Your task to perform on an android device: turn off location history Image 0: 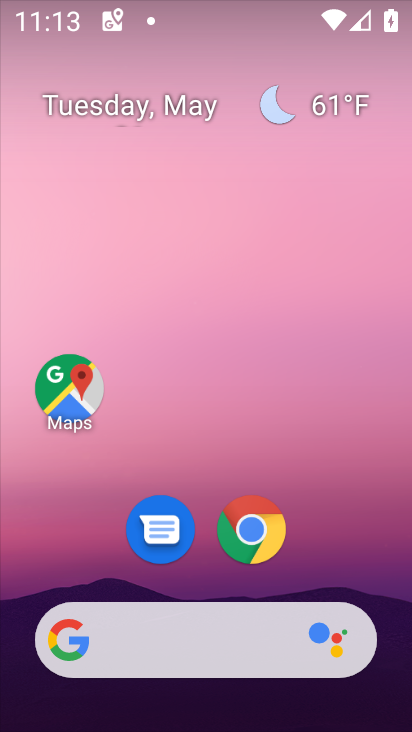
Step 0: drag from (368, 579) to (120, 124)
Your task to perform on an android device: turn off location history Image 1: 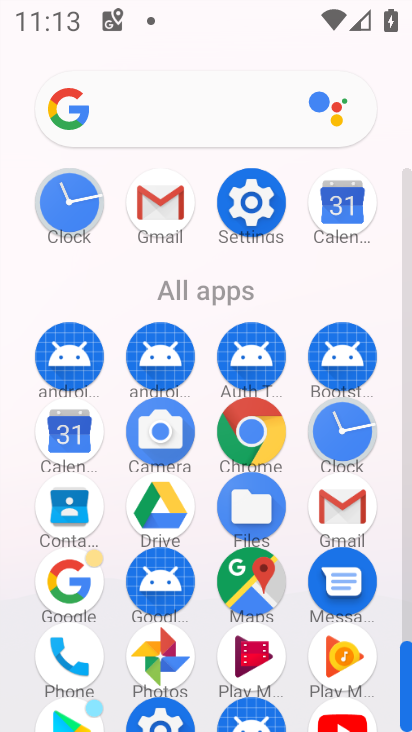
Step 1: click (258, 230)
Your task to perform on an android device: turn off location history Image 2: 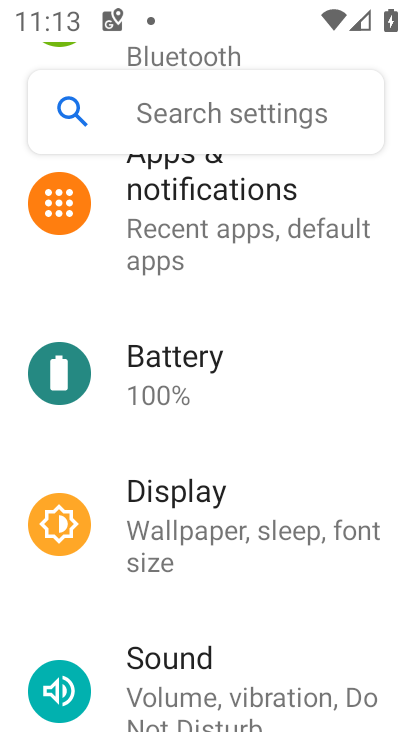
Step 2: drag from (264, 665) to (219, 140)
Your task to perform on an android device: turn off location history Image 3: 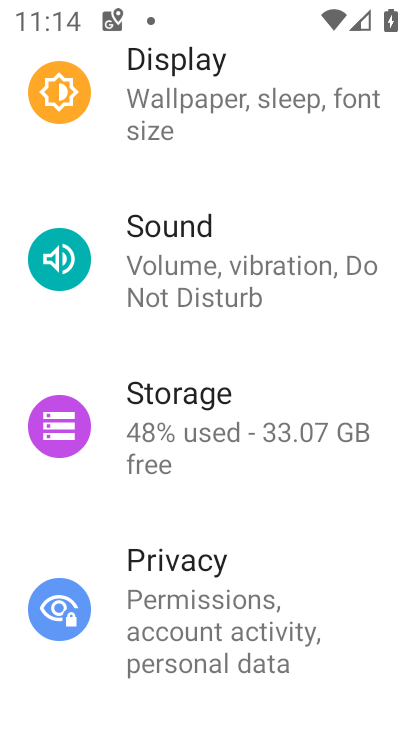
Step 3: drag from (215, 610) to (174, 50)
Your task to perform on an android device: turn off location history Image 4: 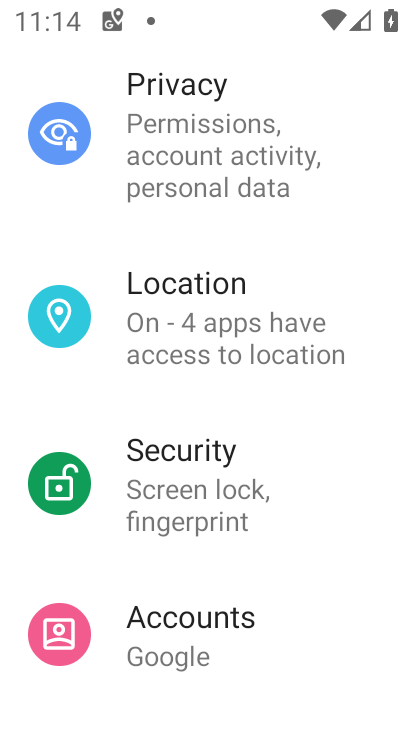
Step 4: click (167, 331)
Your task to perform on an android device: turn off location history Image 5: 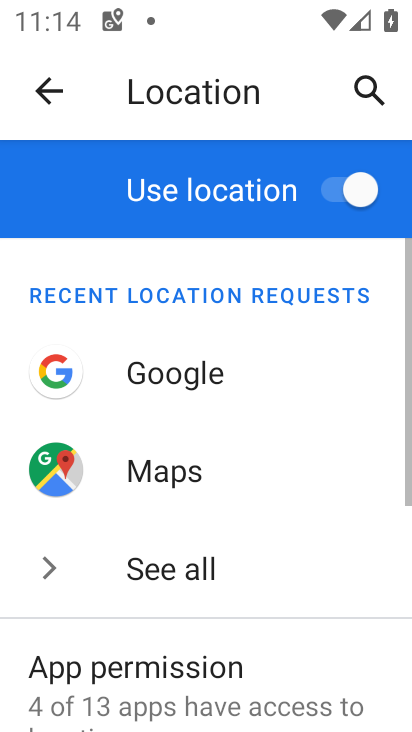
Step 5: drag from (247, 603) to (160, 136)
Your task to perform on an android device: turn off location history Image 6: 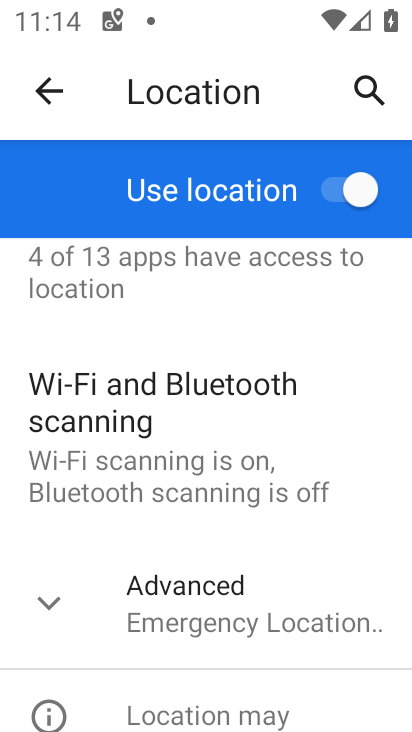
Step 6: drag from (190, 638) to (171, 491)
Your task to perform on an android device: turn off location history Image 7: 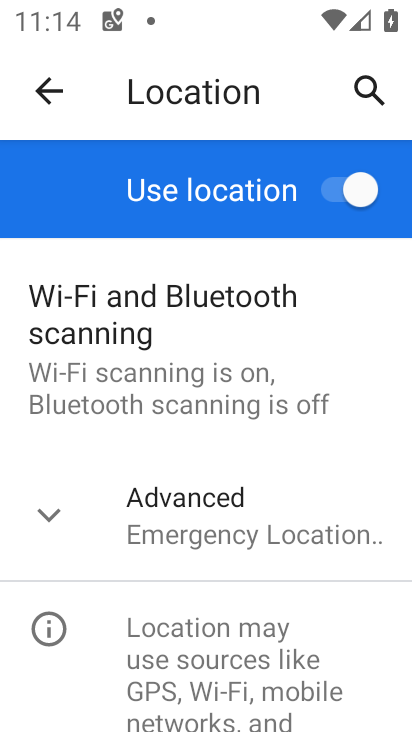
Step 7: click (177, 520)
Your task to perform on an android device: turn off location history Image 8: 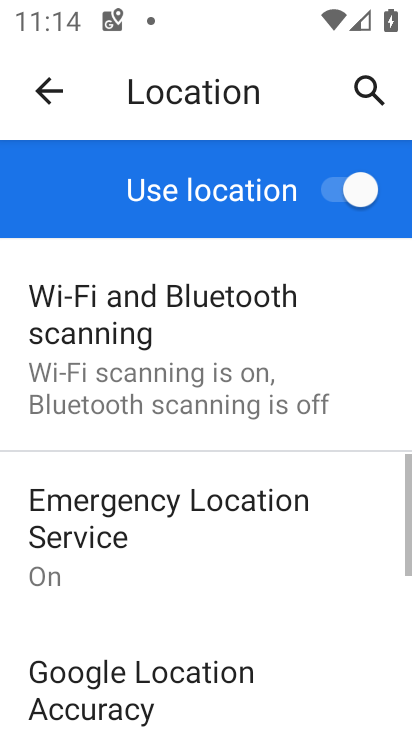
Step 8: drag from (195, 684) to (126, 364)
Your task to perform on an android device: turn off location history Image 9: 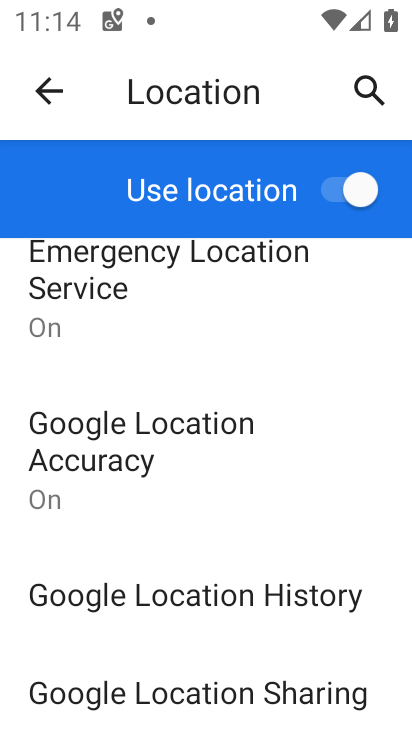
Step 9: click (164, 598)
Your task to perform on an android device: turn off location history Image 10: 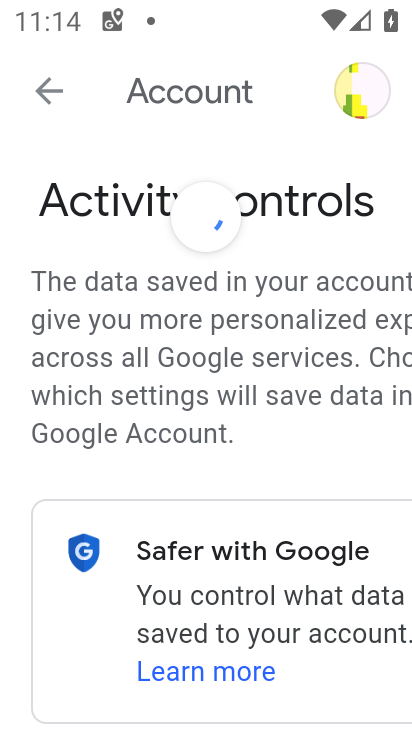
Step 10: task complete